Your task to perform on an android device: Do I have any events tomorrow? Image 0: 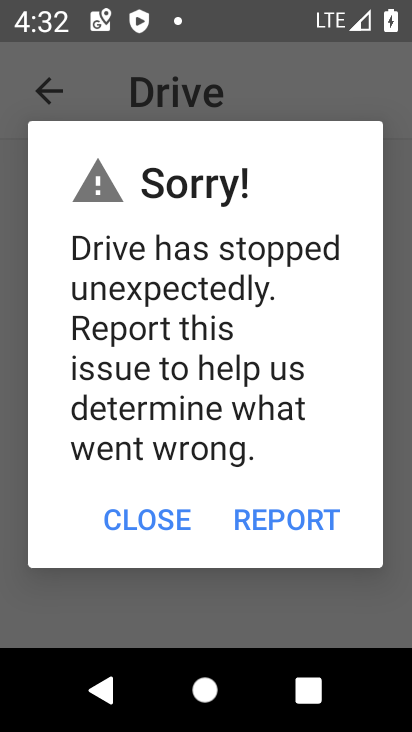
Step 0: press home button
Your task to perform on an android device: Do I have any events tomorrow? Image 1: 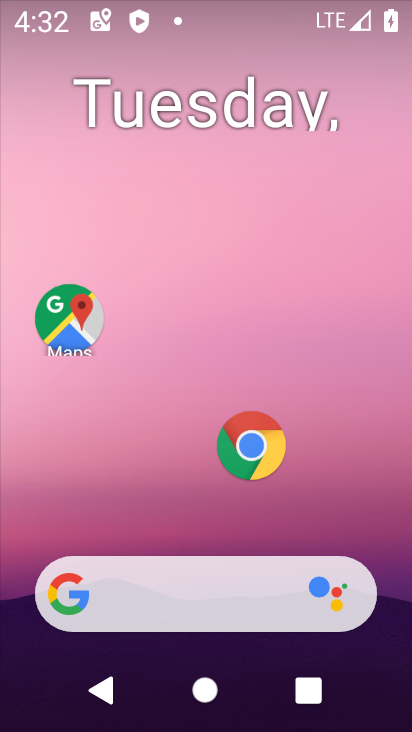
Step 1: drag from (173, 484) to (226, 11)
Your task to perform on an android device: Do I have any events tomorrow? Image 2: 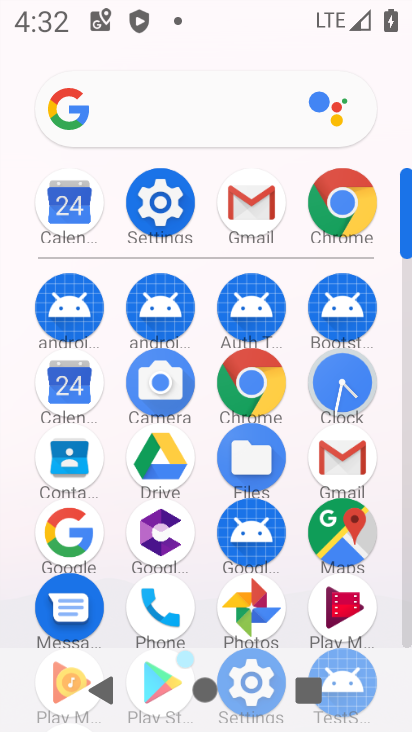
Step 2: click (66, 392)
Your task to perform on an android device: Do I have any events tomorrow? Image 3: 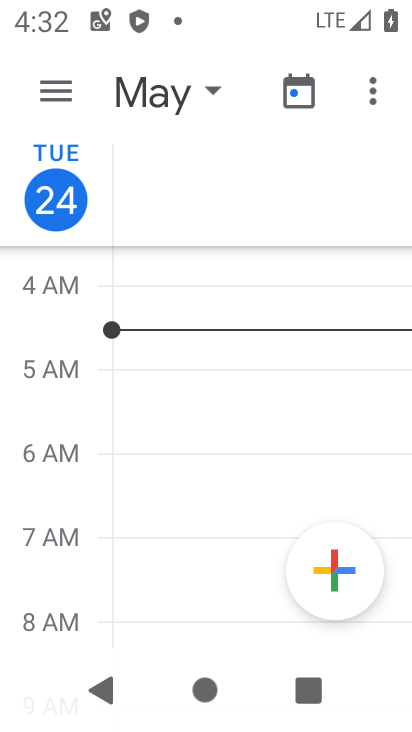
Step 3: click (57, 69)
Your task to perform on an android device: Do I have any events tomorrow? Image 4: 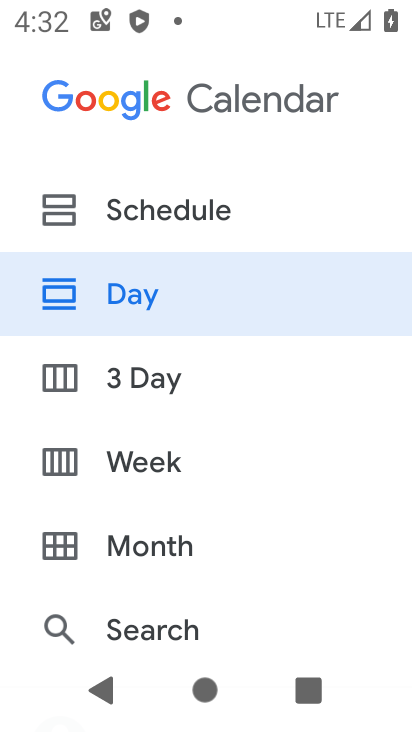
Step 4: drag from (171, 542) to (218, 126)
Your task to perform on an android device: Do I have any events tomorrow? Image 5: 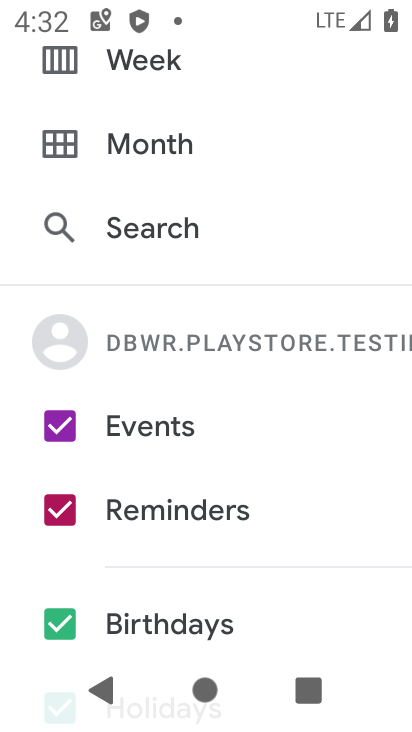
Step 5: click (177, 519)
Your task to perform on an android device: Do I have any events tomorrow? Image 6: 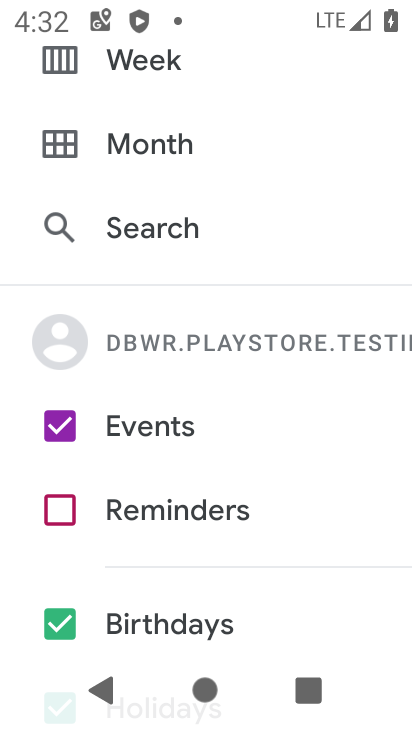
Step 6: click (104, 610)
Your task to perform on an android device: Do I have any events tomorrow? Image 7: 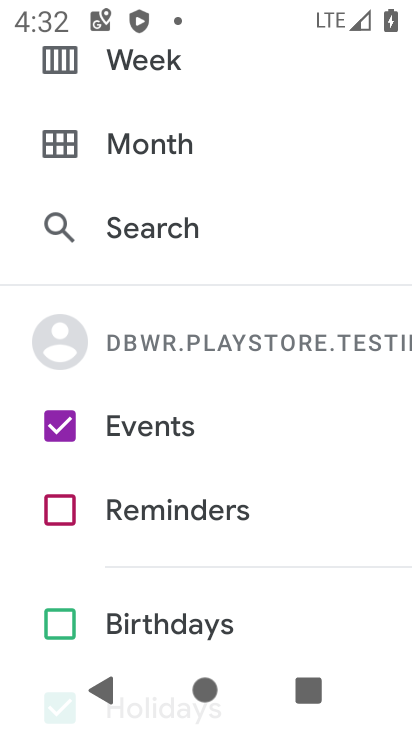
Step 7: drag from (257, 596) to (284, 279)
Your task to perform on an android device: Do I have any events tomorrow? Image 8: 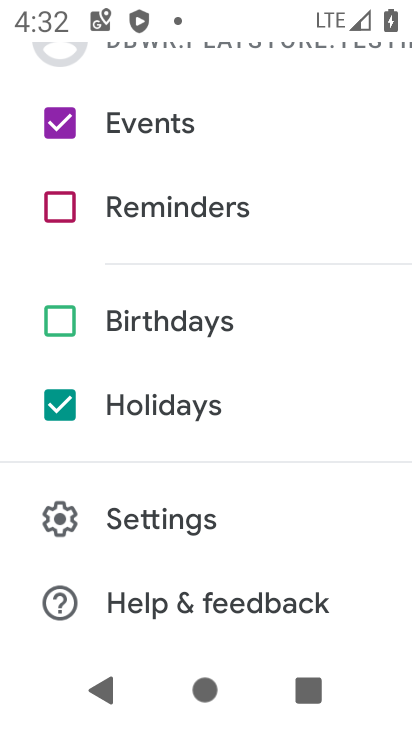
Step 8: click (113, 392)
Your task to perform on an android device: Do I have any events tomorrow? Image 9: 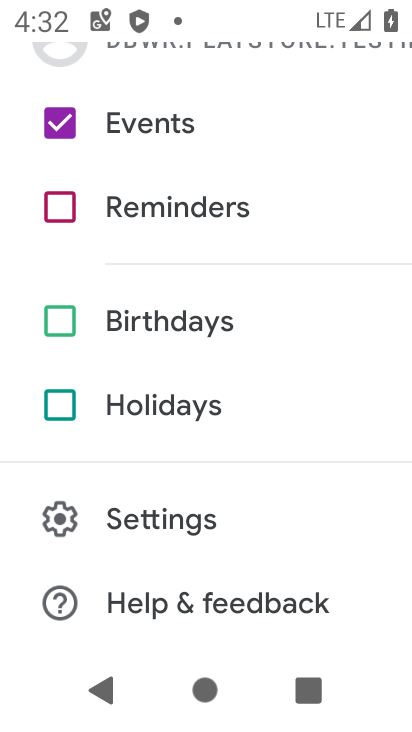
Step 9: drag from (247, 162) to (262, 406)
Your task to perform on an android device: Do I have any events tomorrow? Image 10: 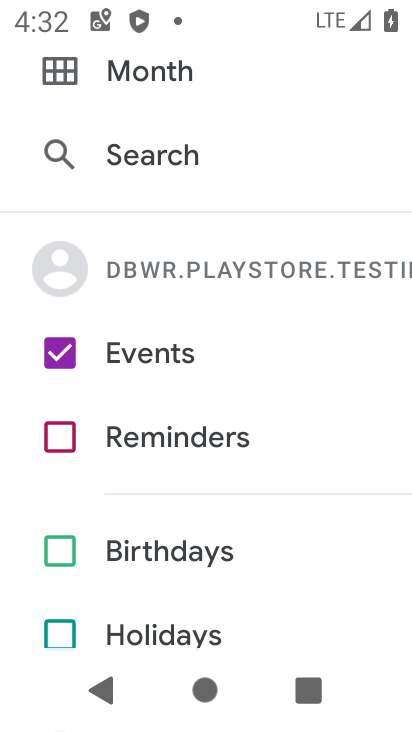
Step 10: drag from (176, 153) to (182, 253)
Your task to perform on an android device: Do I have any events tomorrow? Image 11: 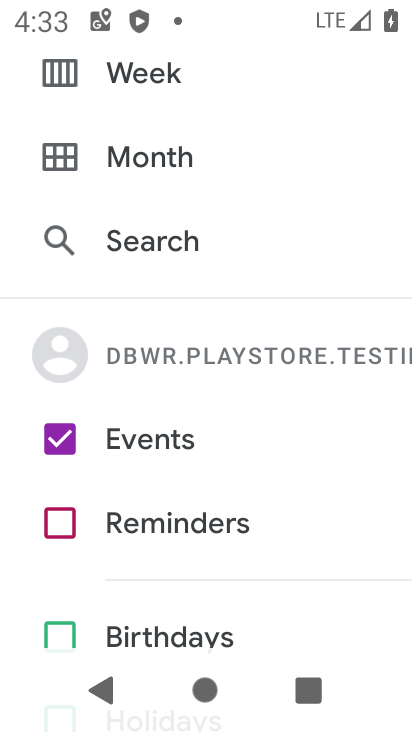
Step 11: drag from (158, 101) to (180, 306)
Your task to perform on an android device: Do I have any events tomorrow? Image 12: 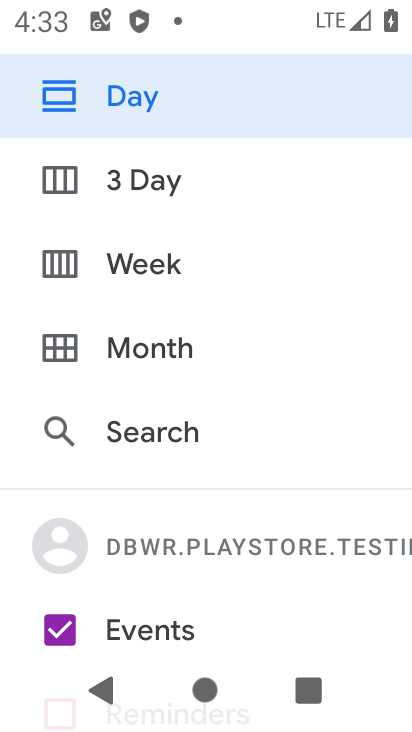
Step 12: click (152, 191)
Your task to perform on an android device: Do I have any events tomorrow? Image 13: 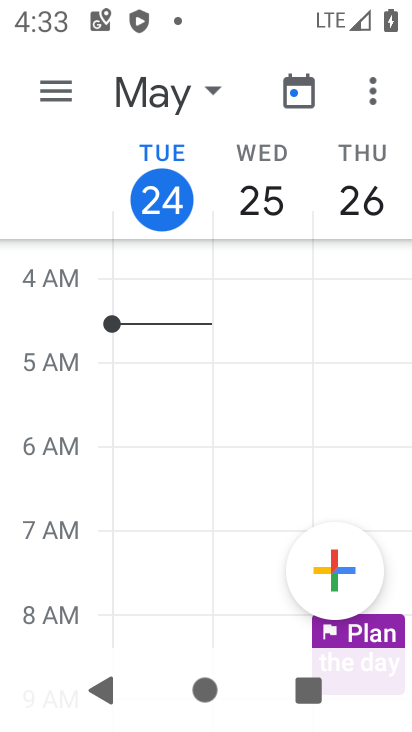
Step 13: task complete